Your task to perform on an android device: Open the stopwatch Image 0: 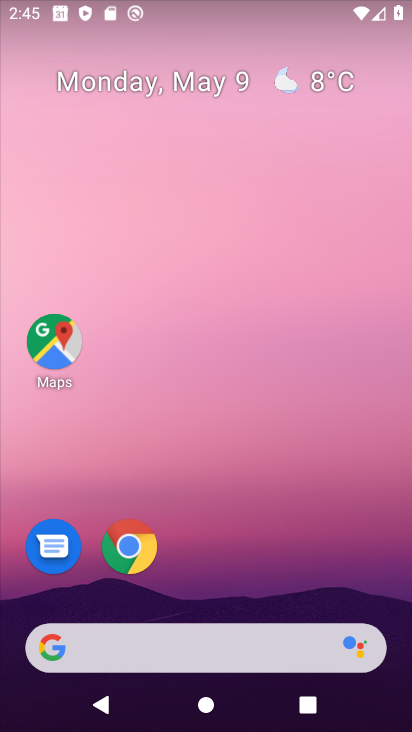
Step 0: drag from (272, 568) to (333, 8)
Your task to perform on an android device: Open the stopwatch Image 1: 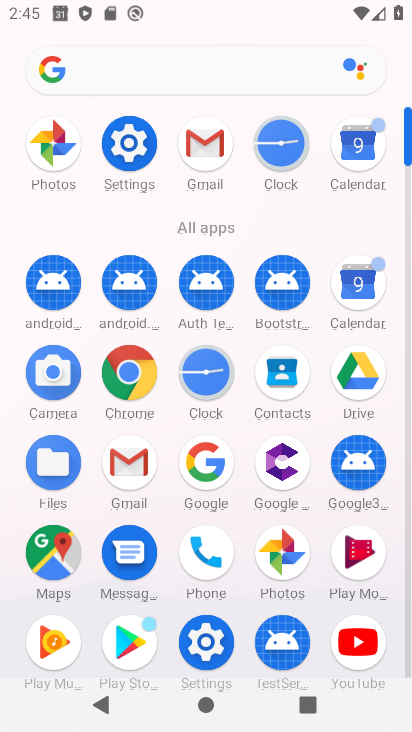
Step 1: click (205, 362)
Your task to perform on an android device: Open the stopwatch Image 2: 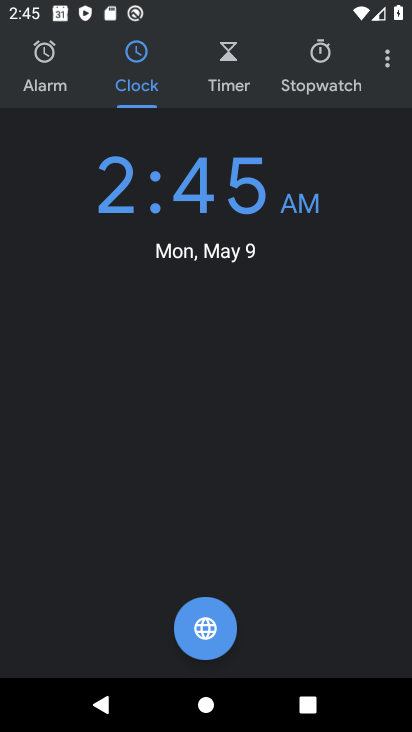
Step 2: click (322, 57)
Your task to perform on an android device: Open the stopwatch Image 3: 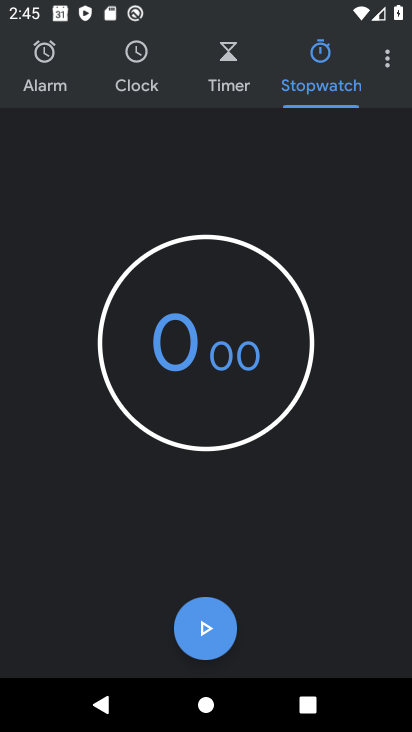
Step 3: task complete